Your task to perform on an android device: Open network settings Image 0: 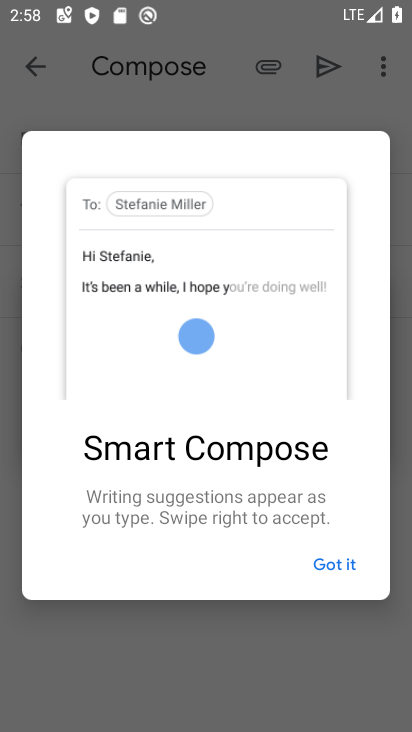
Step 0: press home button
Your task to perform on an android device: Open network settings Image 1: 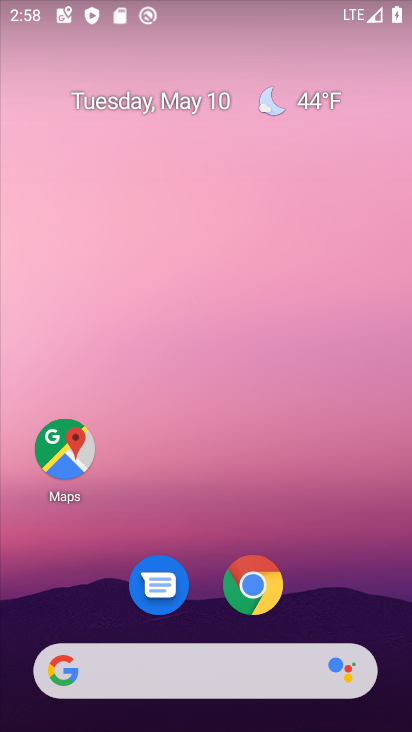
Step 1: drag from (242, 480) to (219, 41)
Your task to perform on an android device: Open network settings Image 2: 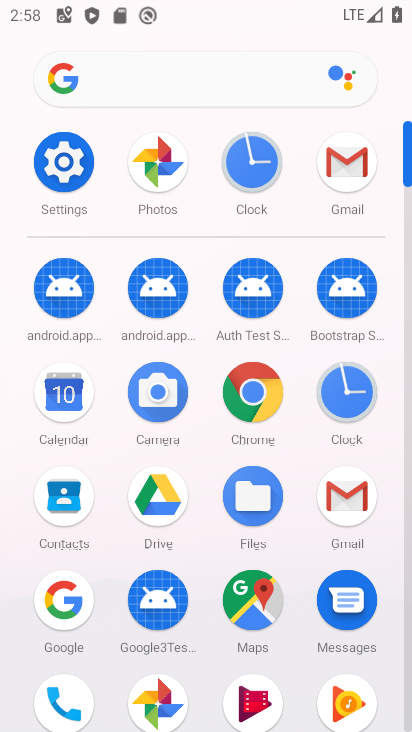
Step 2: click (74, 164)
Your task to perform on an android device: Open network settings Image 3: 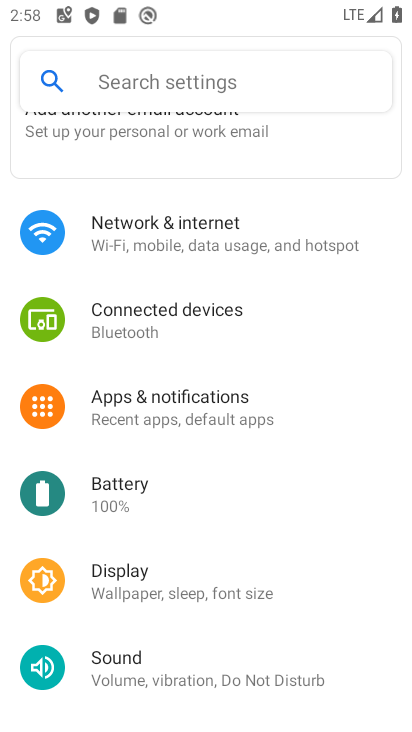
Step 3: click (224, 232)
Your task to perform on an android device: Open network settings Image 4: 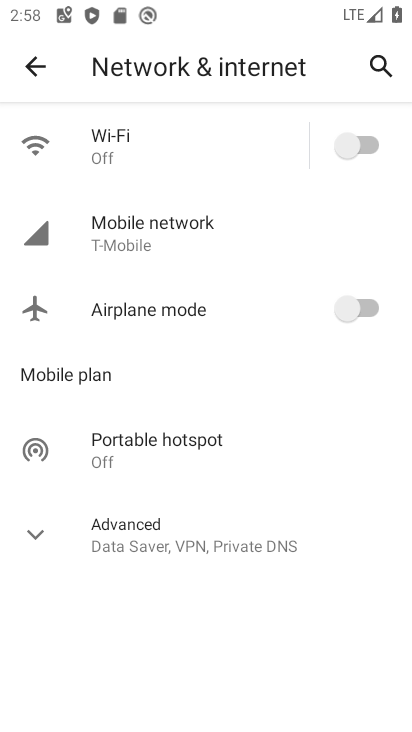
Step 4: task complete